Your task to perform on an android device: Open maps Image 0: 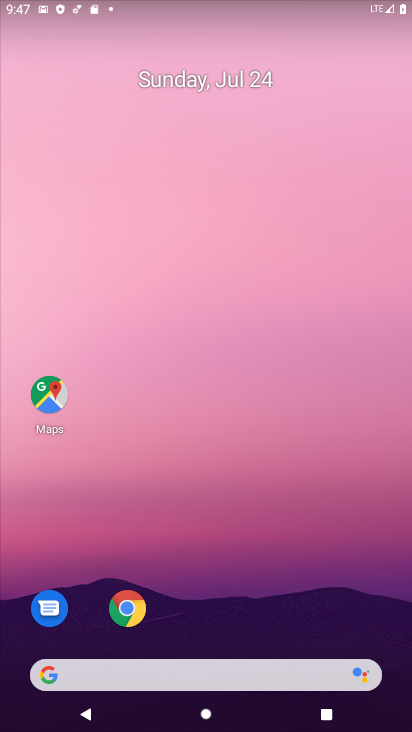
Step 0: press home button
Your task to perform on an android device: Open maps Image 1: 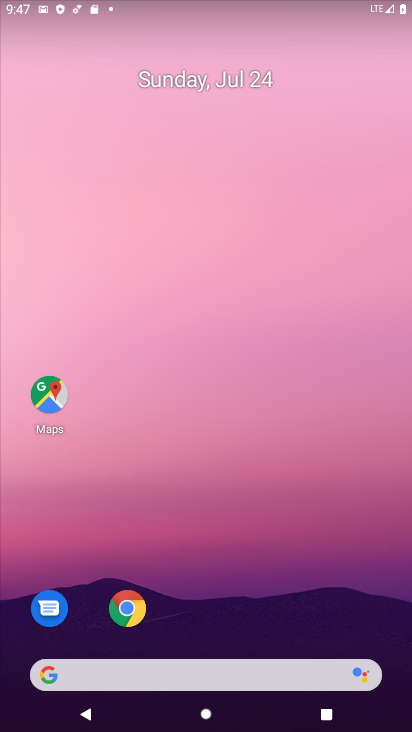
Step 1: click (45, 389)
Your task to perform on an android device: Open maps Image 2: 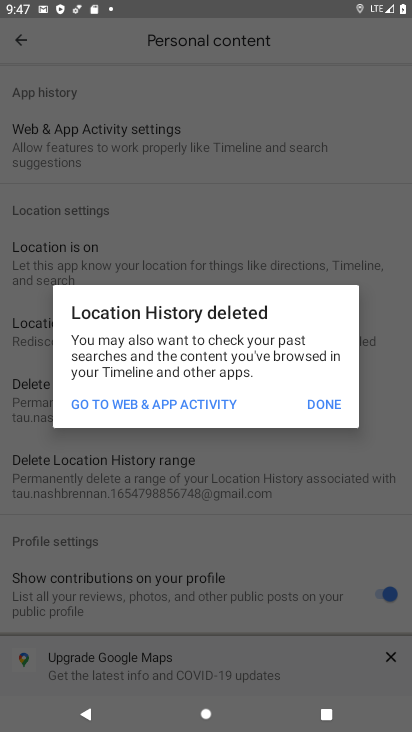
Step 2: click (327, 402)
Your task to perform on an android device: Open maps Image 3: 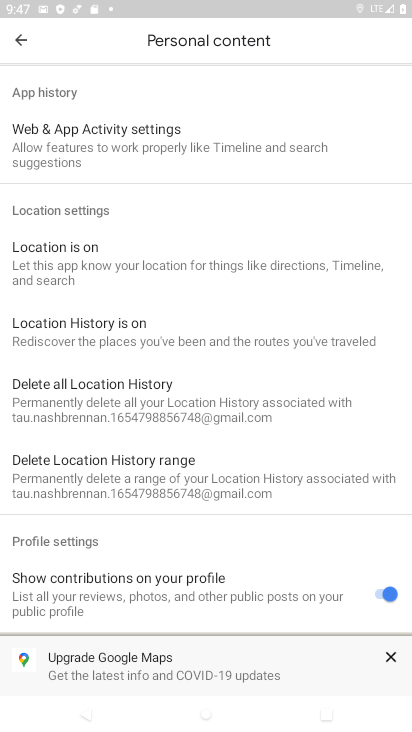
Step 3: click (16, 42)
Your task to perform on an android device: Open maps Image 4: 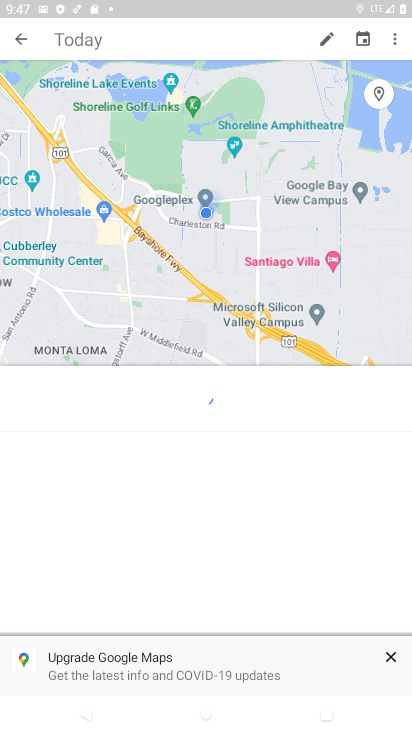
Step 4: click (21, 44)
Your task to perform on an android device: Open maps Image 5: 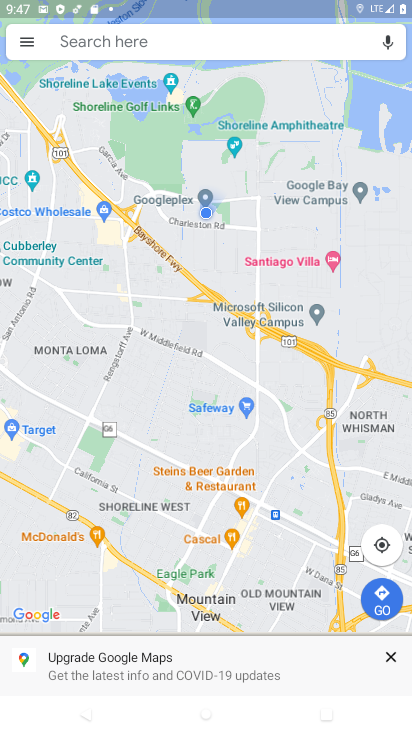
Step 5: task complete